Your task to perform on an android device: Open network settings Image 0: 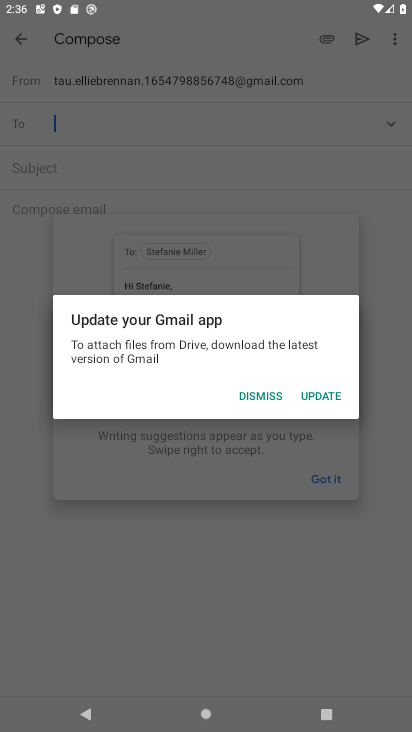
Step 0: press home button
Your task to perform on an android device: Open network settings Image 1: 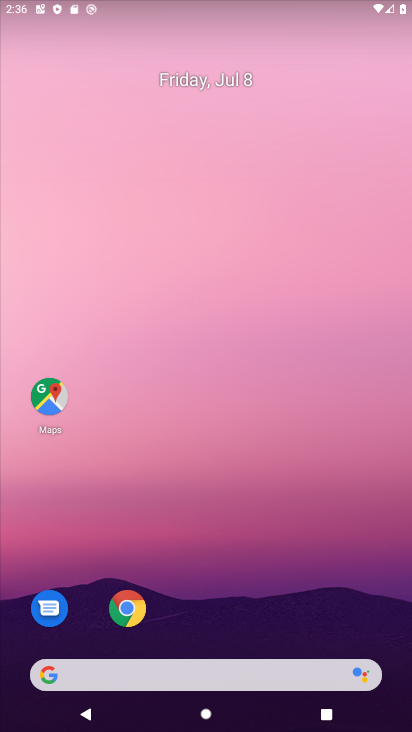
Step 1: drag from (227, 654) to (211, 10)
Your task to perform on an android device: Open network settings Image 2: 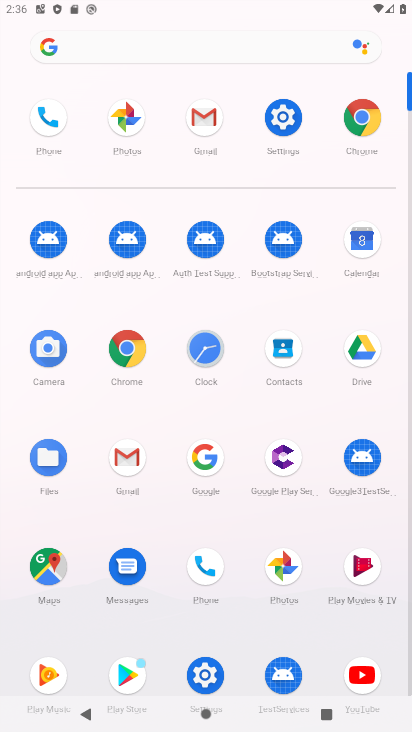
Step 2: click (270, 112)
Your task to perform on an android device: Open network settings Image 3: 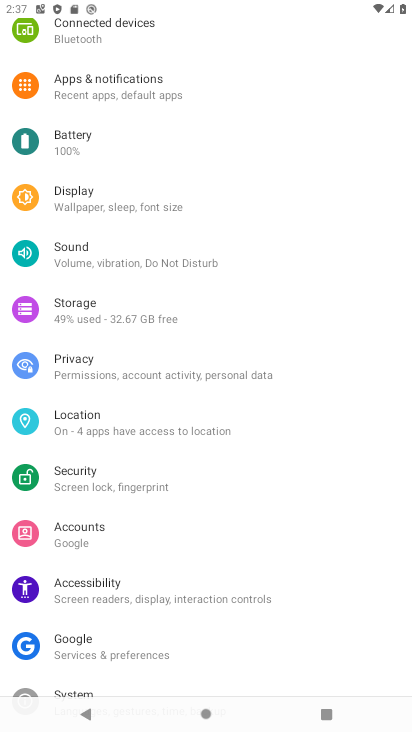
Step 3: drag from (229, 198) to (210, 612)
Your task to perform on an android device: Open network settings Image 4: 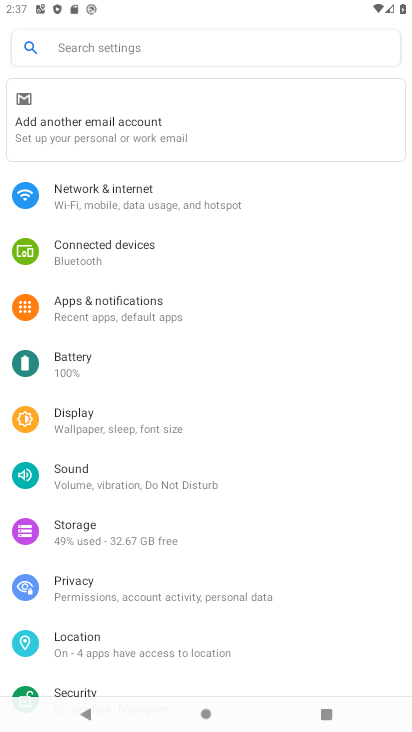
Step 4: click (133, 195)
Your task to perform on an android device: Open network settings Image 5: 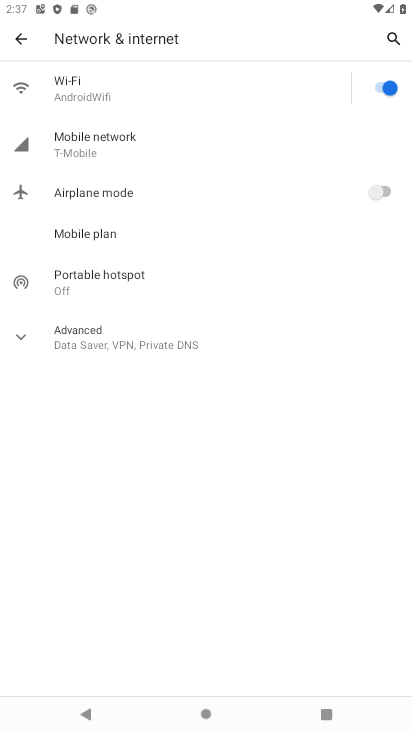
Step 5: click (123, 145)
Your task to perform on an android device: Open network settings Image 6: 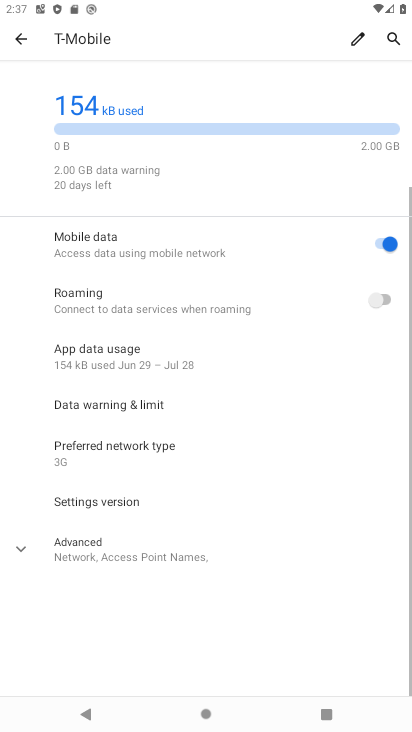
Step 6: task complete